Your task to perform on an android device: Search for Mexican restaurants on Maps Image 0: 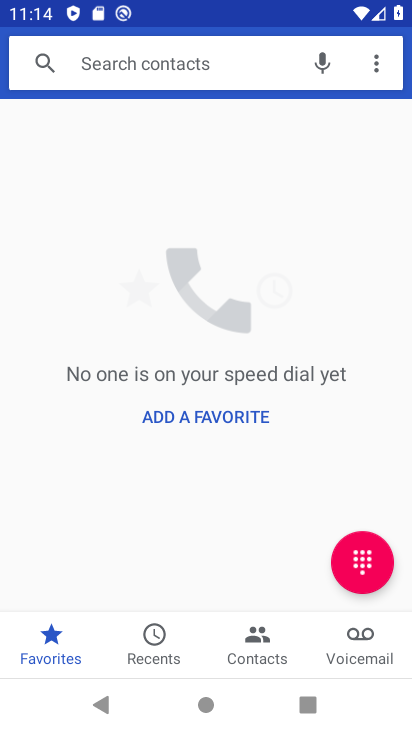
Step 0: drag from (252, 717) to (241, 81)
Your task to perform on an android device: Search for Mexican restaurants on Maps Image 1: 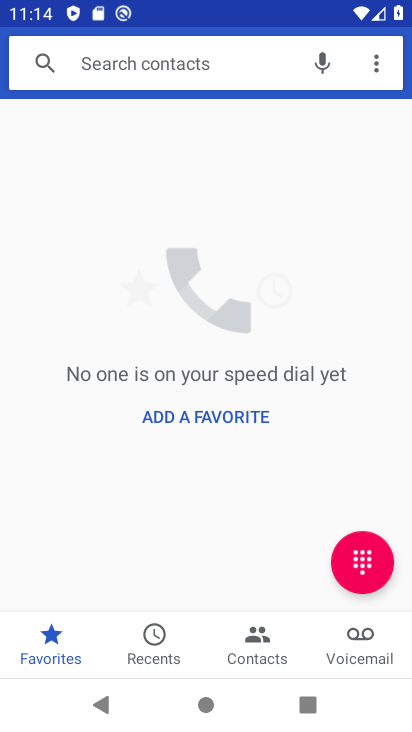
Step 1: press home button
Your task to perform on an android device: Search for Mexican restaurants on Maps Image 2: 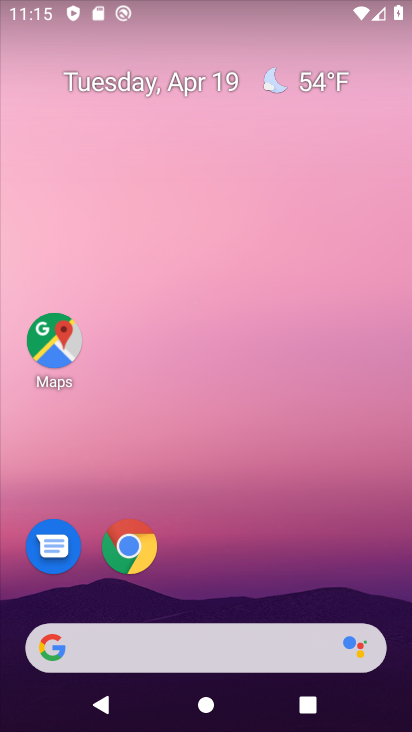
Step 2: click (71, 349)
Your task to perform on an android device: Search for Mexican restaurants on Maps Image 3: 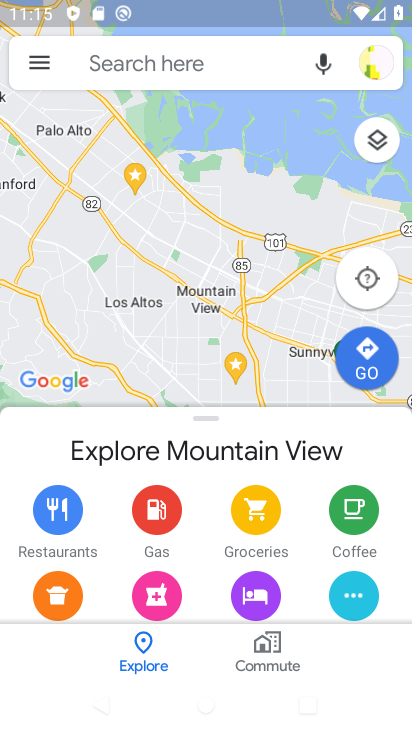
Step 3: click (192, 87)
Your task to perform on an android device: Search for Mexican restaurants on Maps Image 4: 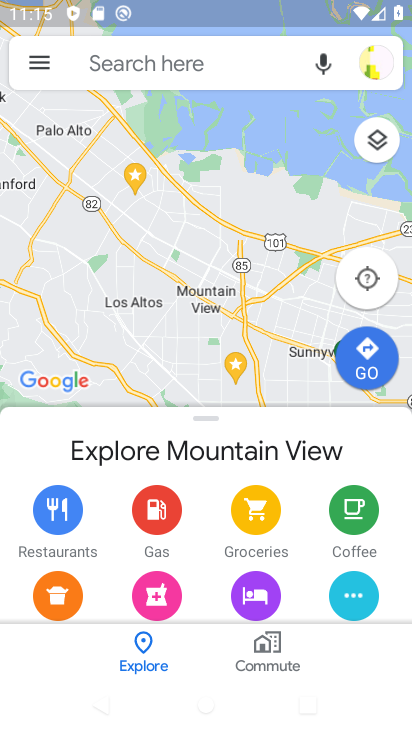
Step 4: click (198, 76)
Your task to perform on an android device: Search for Mexican restaurants on Maps Image 5: 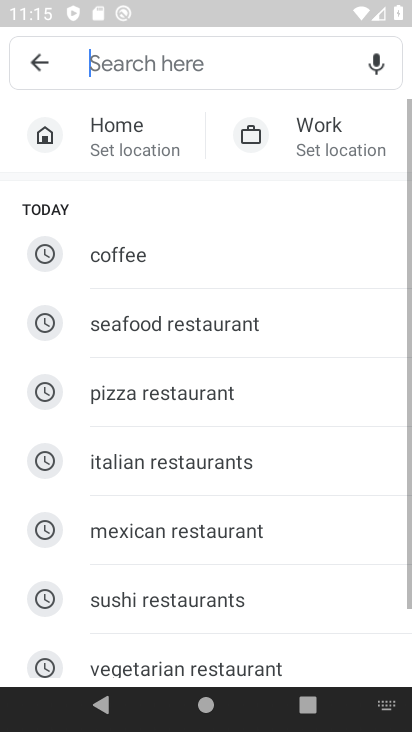
Step 5: click (204, 53)
Your task to perform on an android device: Search for Mexican restaurants on Maps Image 6: 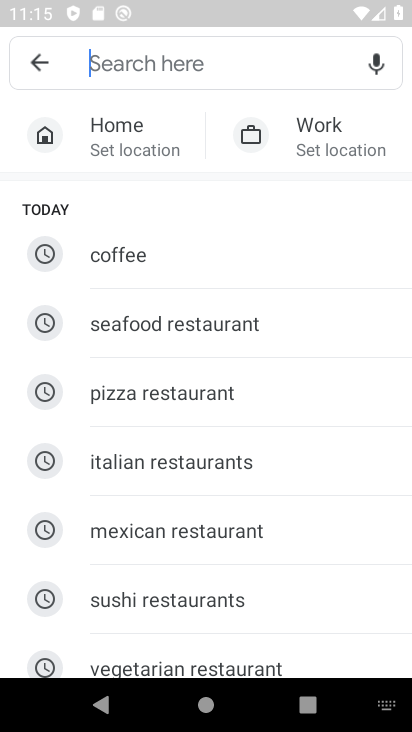
Step 6: click (179, 538)
Your task to perform on an android device: Search for Mexican restaurants on Maps Image 7: 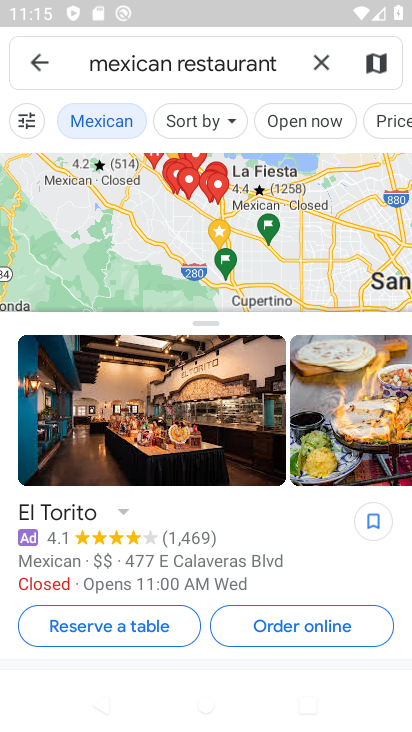
Step 7: task complete